Your task to perform on an android device: Go to calendar. Show me events next week Image 0: 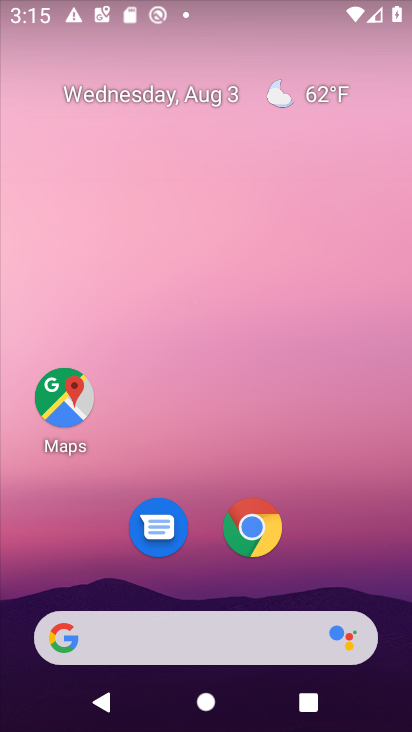
Step 0: drag from (346, 521) to (219, 12)
Your task to perform on an android device: Go to calendar. Show me events next week Image 1: 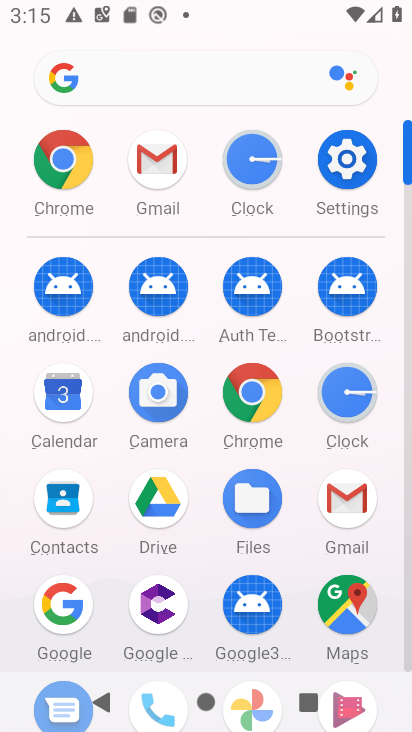
Step 1: click (67, 379)
Your task to perform on an android device: Go to calendar. Show me events next week Image 2: 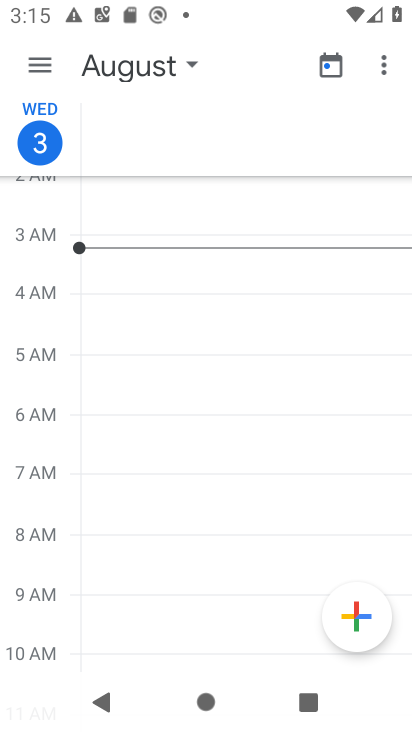
Step 2: click (125, 67)
Your task to perform on an android device: Go to calendar. Show me events next week Image 3: 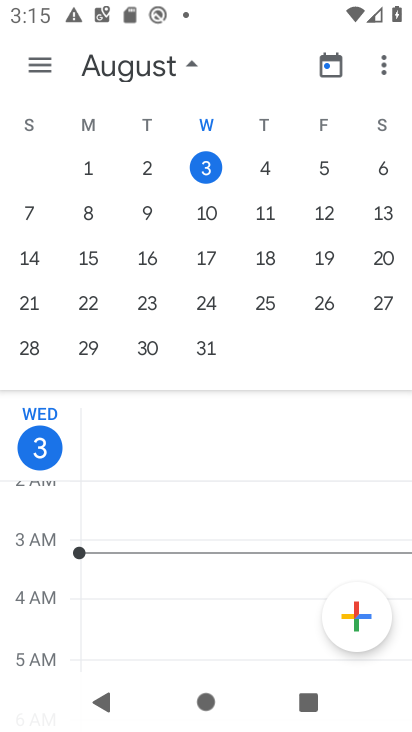
Step 3: click (209, 214)
Your task to perform on an android device: Go to calendar. Show me events next week Image 4: 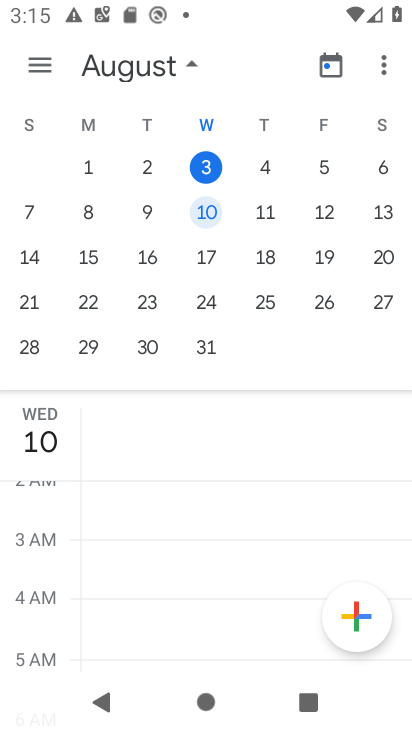
Step 4: click (55, 66)
Your task to perform on an android device: Go to calendar. Show me events next week Image 5: 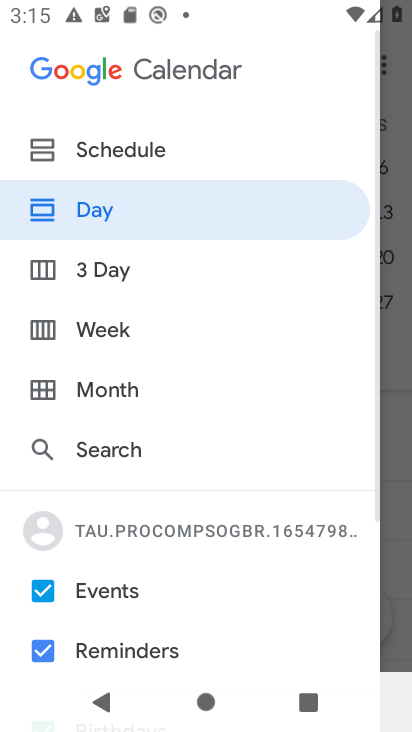
Step 5: click (124, 339)
Your task to perform on an android device: Go to calendar. Show me events next week Image 6: 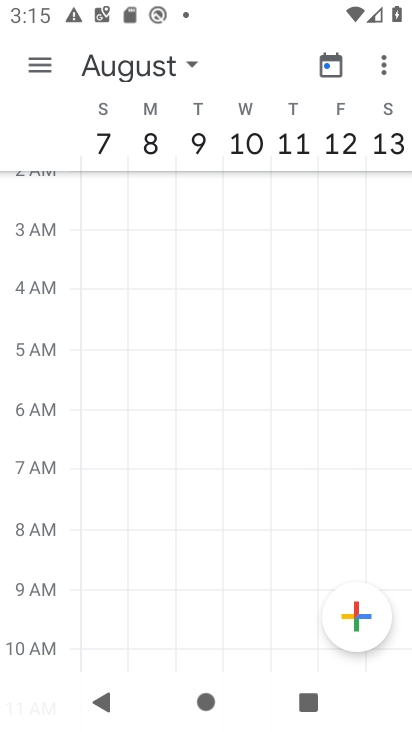
Step 6: task complete